Your task to perform on an android device: install app "Fetch Rewards" Image 0: 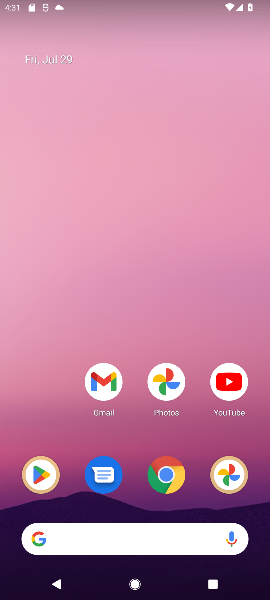
Step 0: press home button
Your task to perform on an android device: install app "Fetch Rewards" Image 1: 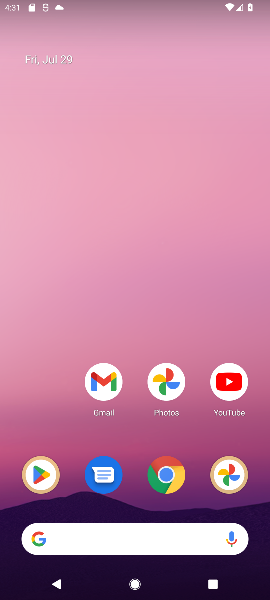
Step 1: click (49, 482)
Your task to perform on an android device: install app "Fetch Rewards" Image 2: 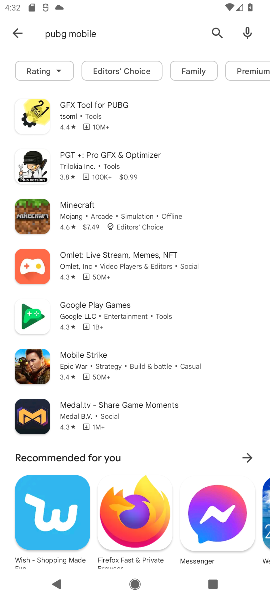
Step 2: click (227, 443)
Your task to perform on an android device: install app "Fetch Rewards" Image 3: 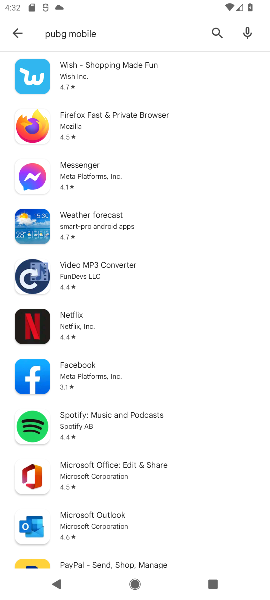
Step 3: click (218, 34)
Your task to perform on an android device: install app "Fetch Rewards" Image 4: 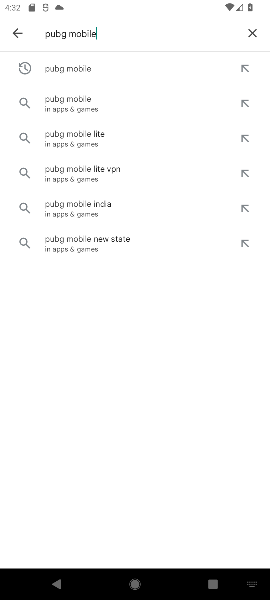
Step 4: click (254, 34)
Your task to perform on an android device: install app "Fetch Rewards" Image 5: 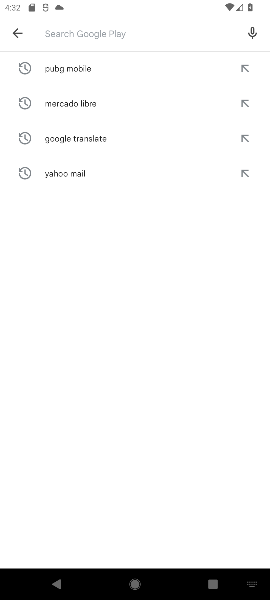
Step 5: type "Fetch Rewards"
Your task to perform on an android device: install app "Fetch Rewards" Image 6: 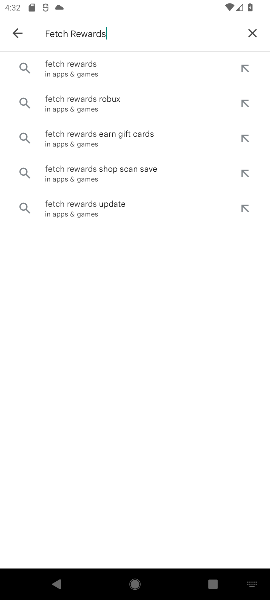
Step 6: click (87, 68)
Your task to perform on an android device: install app "Fetch Rewards" Image 7: 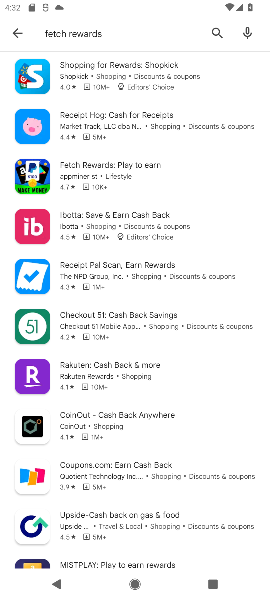
Step 7: drag from (135, 494) to (112, 405)
Your task to perform on an android device: install app "Fetch Rewards" Image 8: 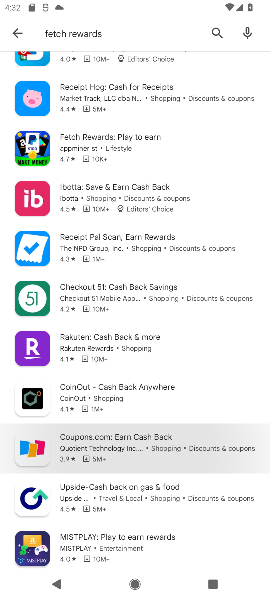
Step 8: click (128, 315)
Your task to perform on an android device: install app "Fetch Rewards" Image 9: 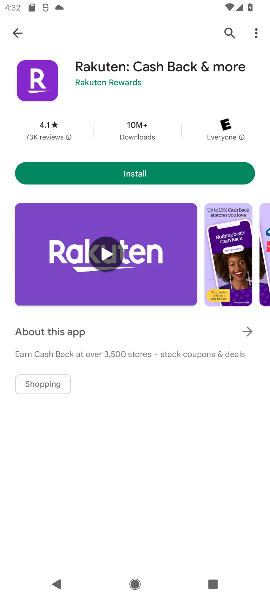
Step 9: click (128, 315)
Your task to perform on an android device: install app "Fetch Rewards" Image 10: 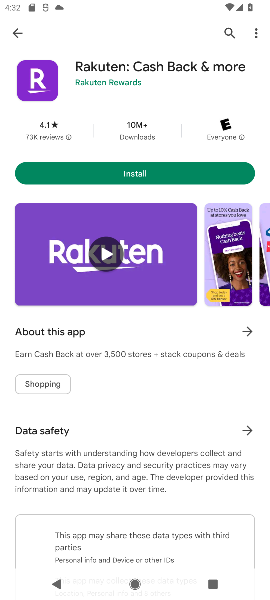
Step 10: click (128, 315)
Your task to perform on an android device: install app "Fetch Rewards" Image 11: 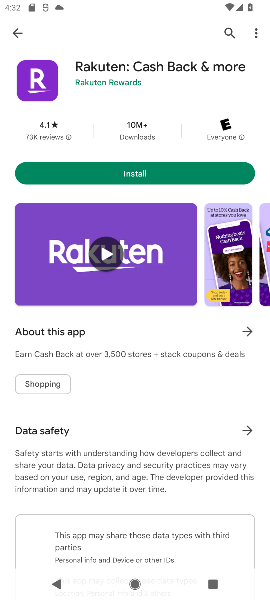
Step 11: press back button
Your task to perform on an android device: install app "Fetch Rewards" Image 12: 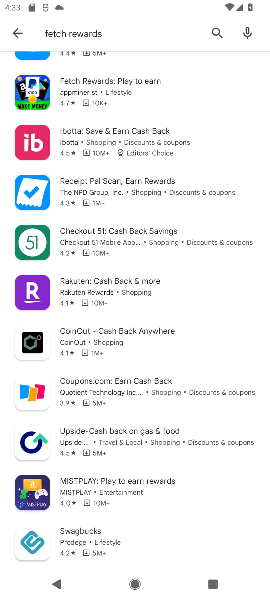
Step 12: drag from (96, 197) to (86, 359)
Your task to perform on an android device: install app "Fetch Rewards" Image 13: 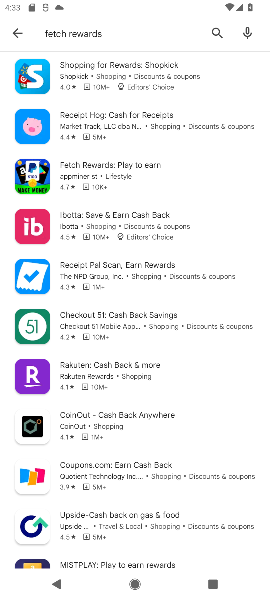
Step 13: drag from (75, 198) to (165, 482)
Your task to perform on an android device: install app "Fetch Rewards" Image 14: 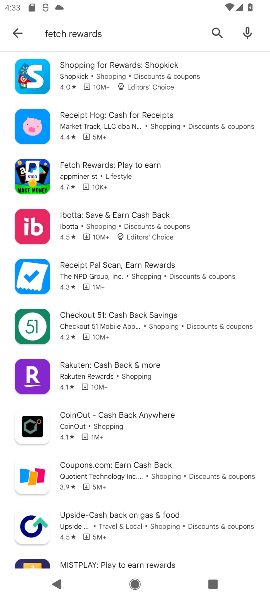
Step 14: click (120, 185)
Your task to perform on an android device: install app "Fetch Rewards" Image 15: 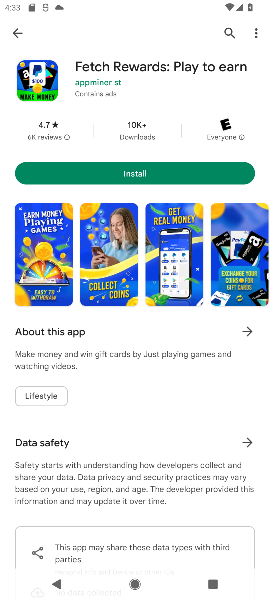
Step 15: click (188, 171)
Your task to perform on an android device: install app "Fetch Rewards" Image 16: 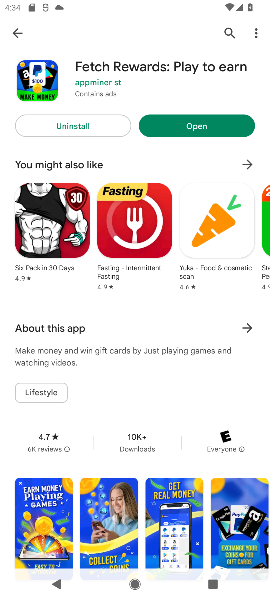
Step 16: task complete